Your task to perform on an android device: Turn off the flashlight Image 0: 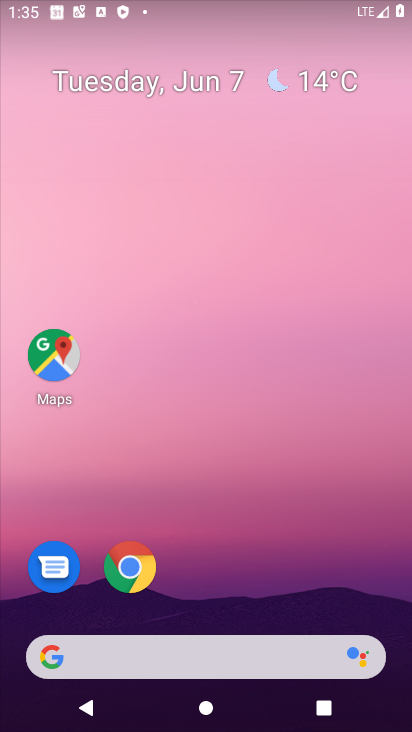
Step 0: drag from (193, 619) to (162, 3)
Your task to perform on an android device: Turn off the flashlight Image 1: 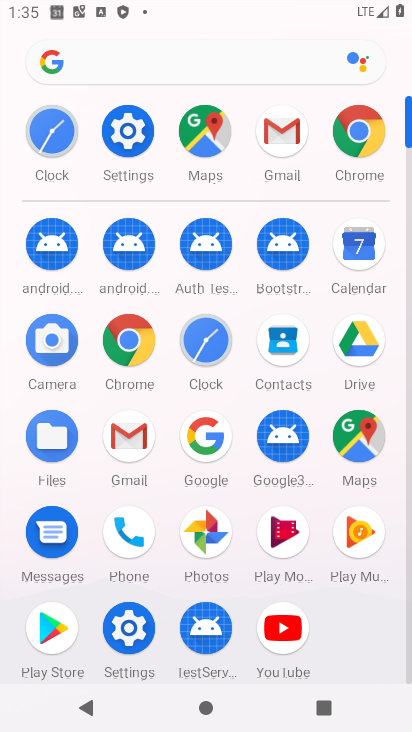
Step 1: click (140, 121)
Your task to perform on an android device: Turn off the flashlight Image 2: 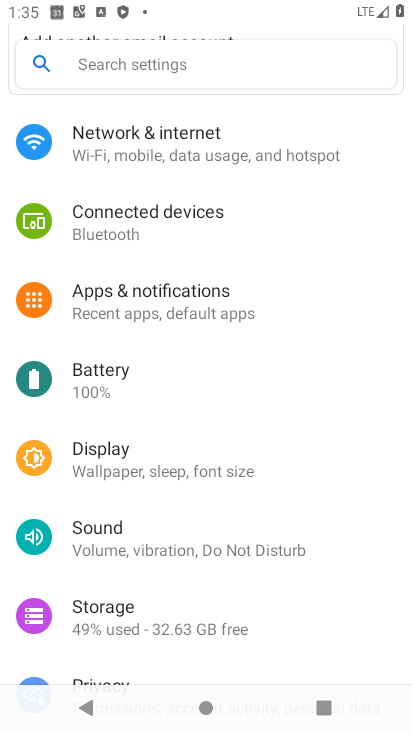
Step 2: click (123, 464)
Your task to perform on an android device: Turn off the flashlight Image 3: 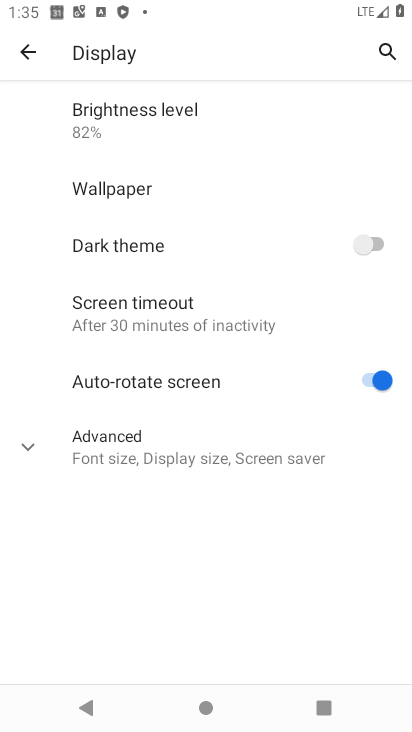
Step 3: task complete